Your task to perform on an android device: Show me popular videos on Youtube Image 0: 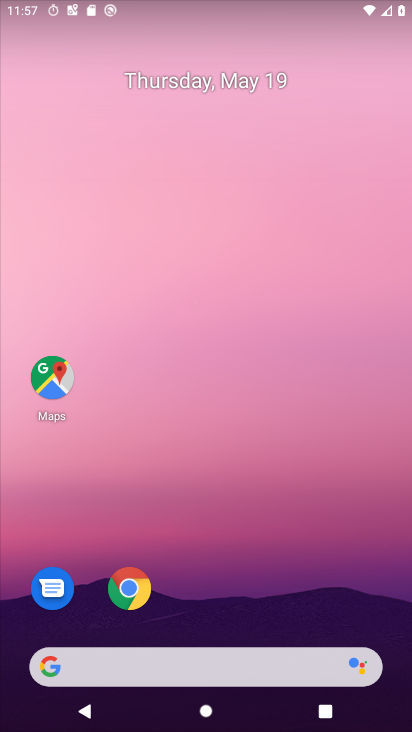
Step 0: press home button
Your task to perform on an android device: Show me popular videos on Youtube Image 1: 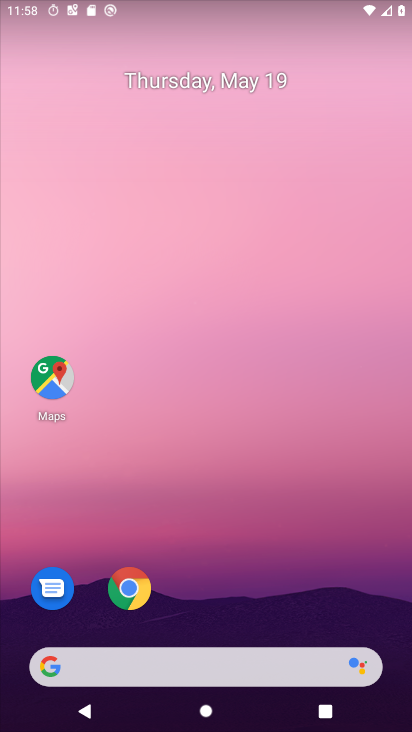
Step 1: drag from (145, 667) to (350, 199)
Your task to perform on an android device: Show me popular videos on Youtube Image 2: 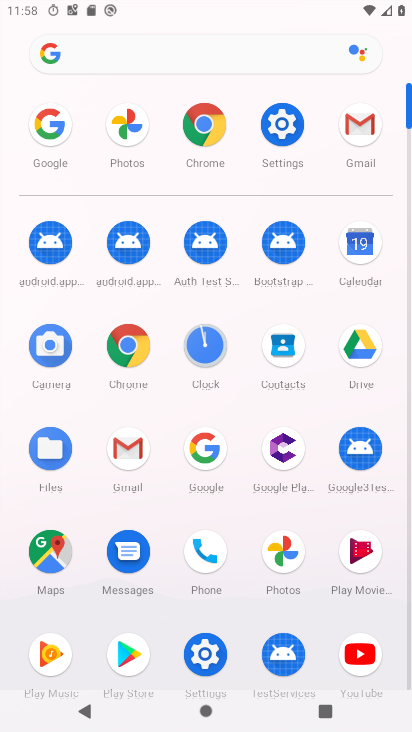
Step 2: click (356, 661)
Your task to perform on an android device: Show me popular videos on Youtube Image 3: 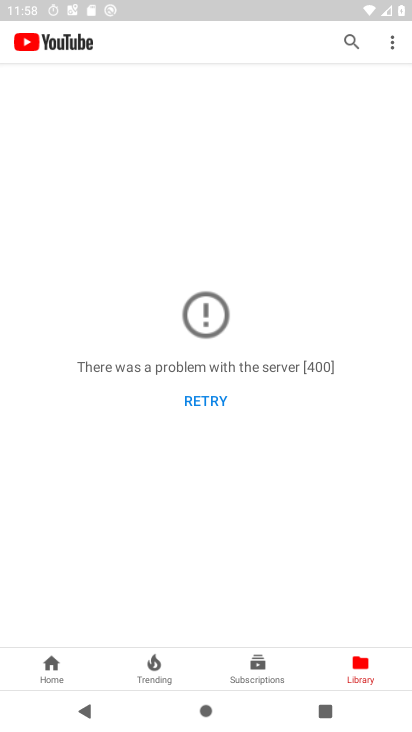
Step 3: click (202, 397)
Your task to perform on an android device: Show me popular videos on Youtube Image 4: 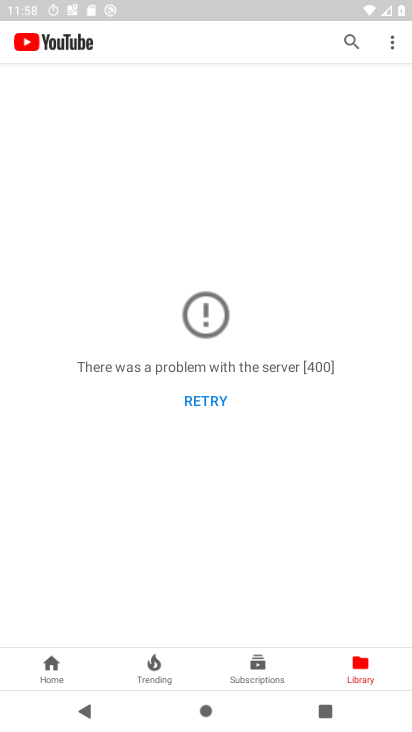
Step 4: click (203, 397)
Your task to perform on an android device: Show me popular videos on Youtube Image 5: 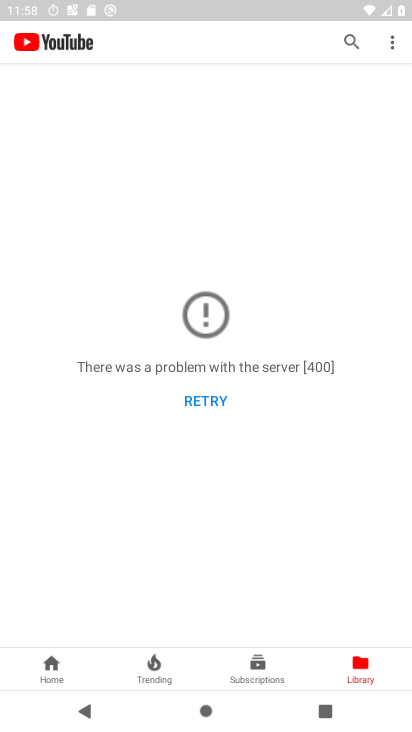
Step 5: task complete